Your task to perform on an android device: show emergency info Image 0: 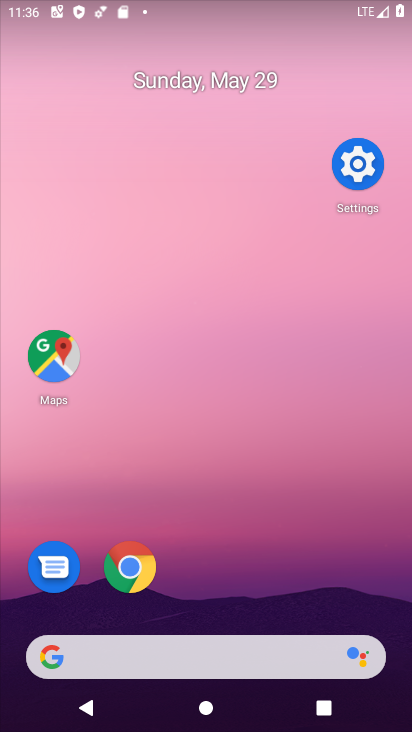
Step 0: drag from (275, 539) to (279, 200)
Your task to perform on an android device: show emergency info Image 1: 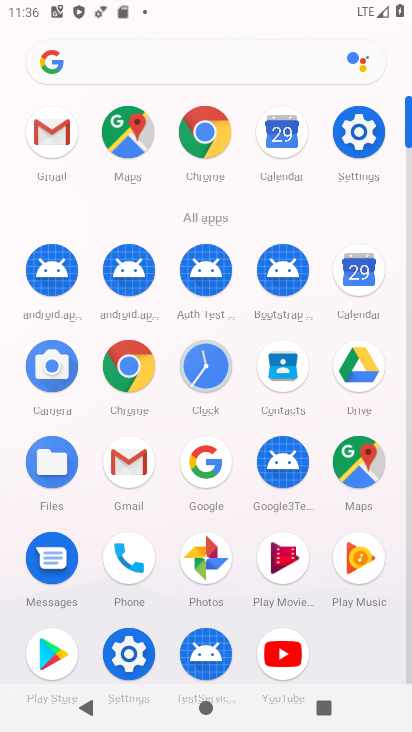
Step 1: click (124, 655)
Your task to perform on an android device: show emergency info Image 2: 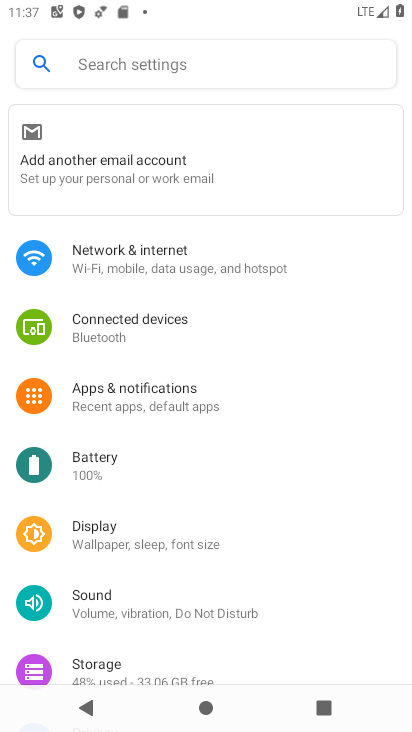
Step 2: drag from (219, 612) to (225, 365)
Your task to perform on an android device: show emergency info Image 3: 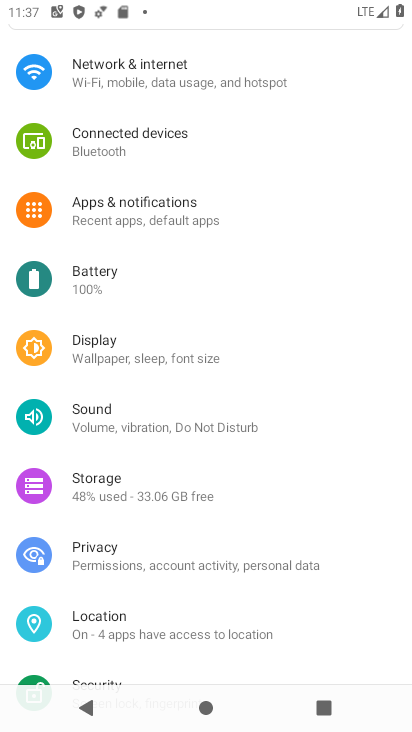
Step 3: drag from (206, 678) to (238, 330)
Your task to perform on an android device: show emergency info Image 4: 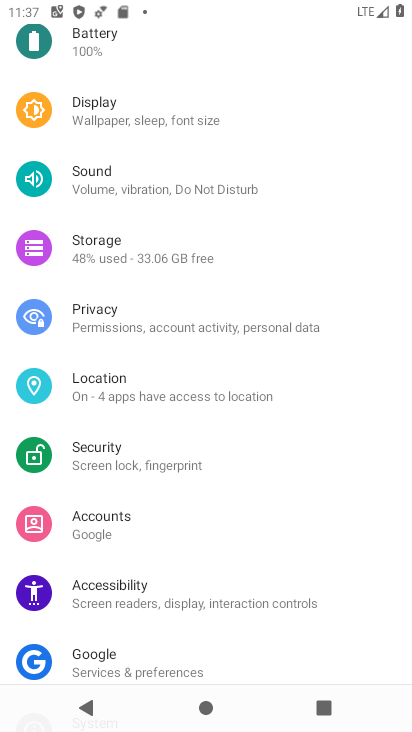
Step 4: drag from (227, 640) to (253, 321)
Your task to perform on an android device: show emergency info Image 5: 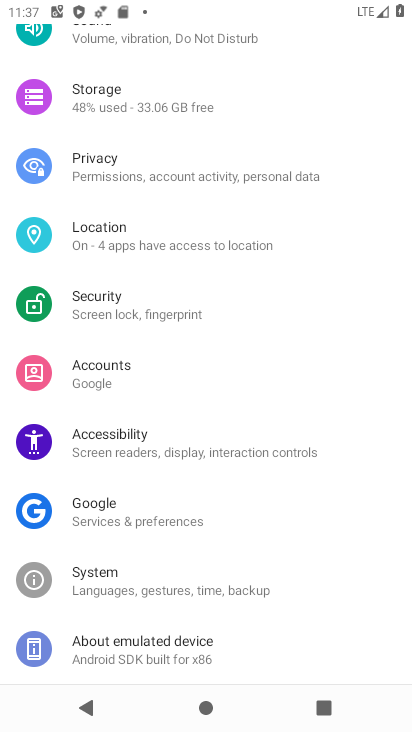
Step 5: click (213, 637)
Your task to perform on an android device: show emergency info Image 6: 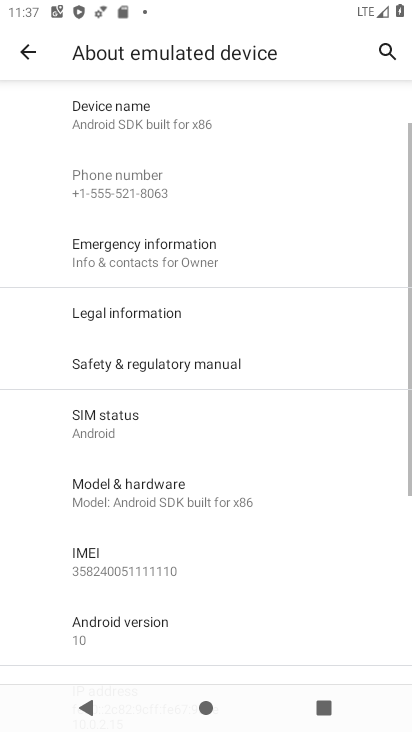
Step 6: click (232, 240)
Your task to perform on an android device: show emergency info Image 7: 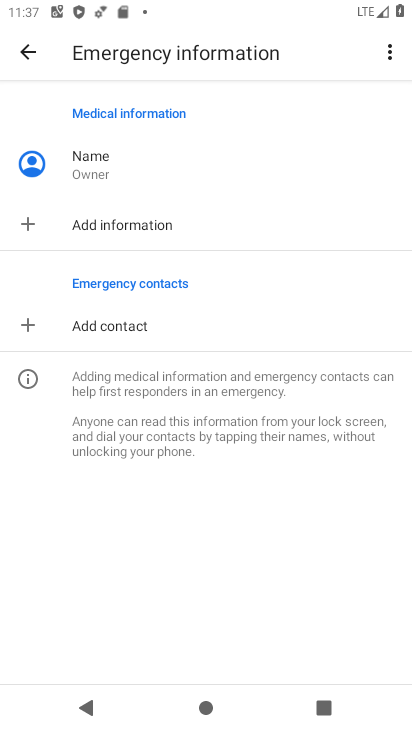
Step 7: task complete